Your task to perform on an android device: move a message to another label in the gmail app Image 0: 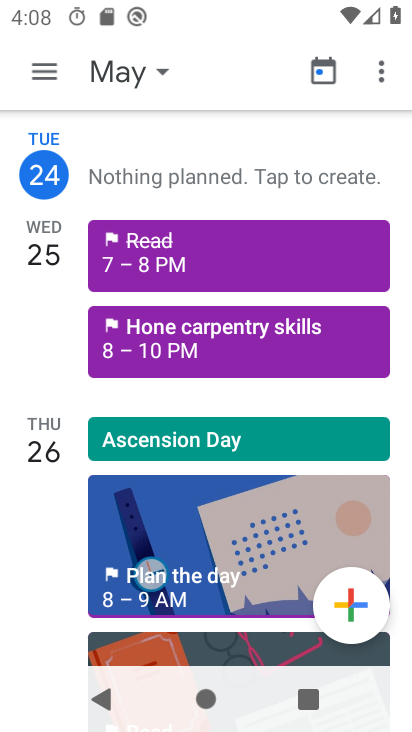
Step 0: press home button
Your task to perform on an android device: move a message to another label in the gmail app Image 1: 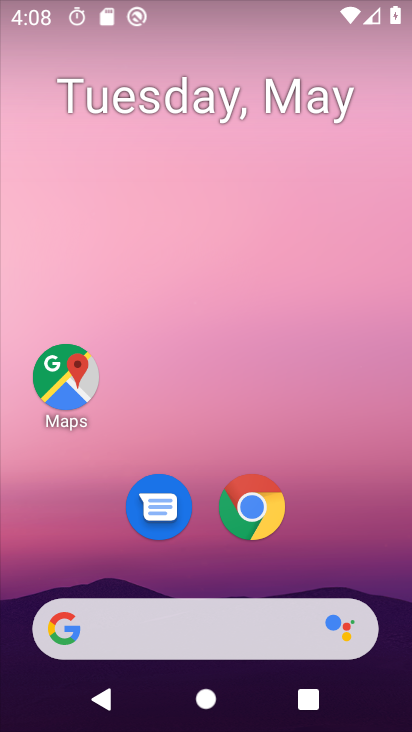
Step 1: drag from (200, 577) to (287, 32)
Your task to perform on an android device: move a message to another label in the gmail app Image 2: 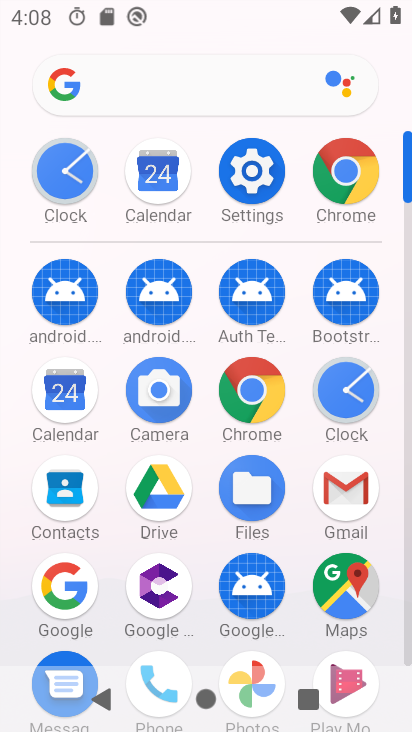
Step 2: click (351, 492)
Your task to perform on an android device: move a message to another label in the gmail app Image 3: 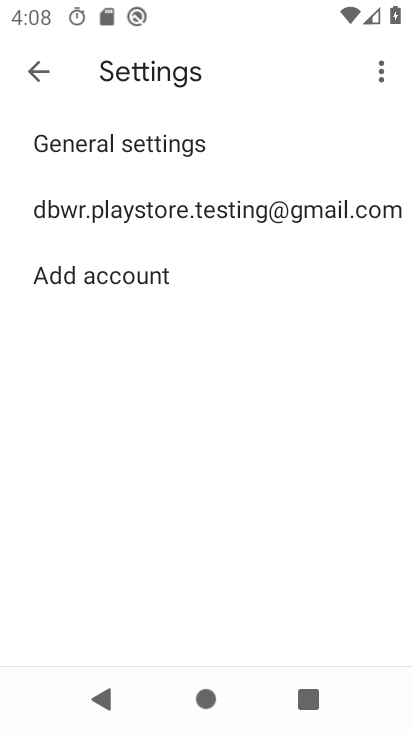
Step 3: click (32, 77)
Your task to perform on an android device: move a message to another label in the gmail app Image 4: 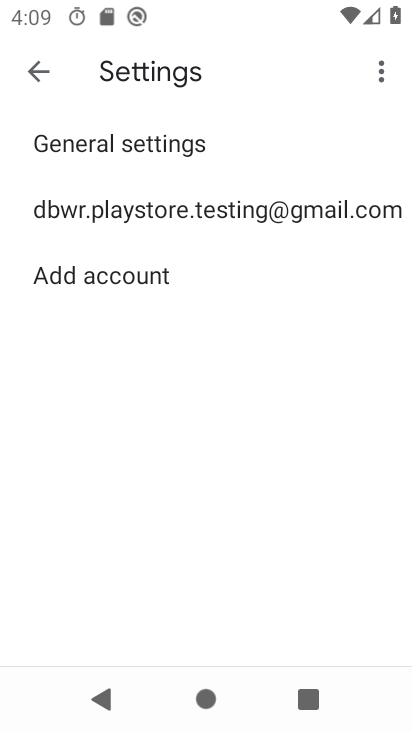
Step 4: click (35, 83)
Your task to perform on an android device: move a message to another label in the gmail app Image 5: 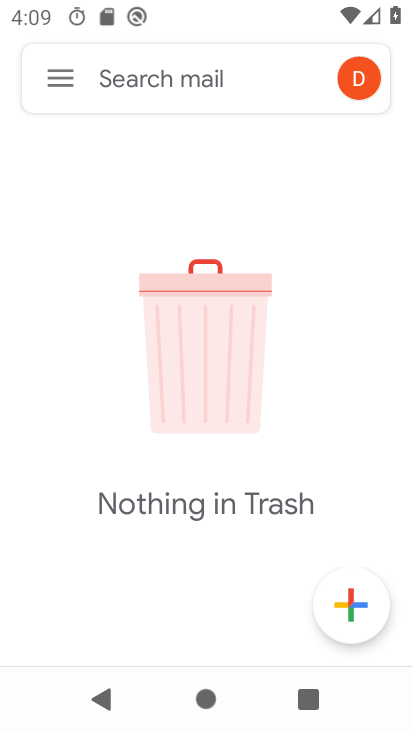
Step 5: click (60, 83)
Your task to perform on an android device: move a message to another label in the gmail app Image 6: 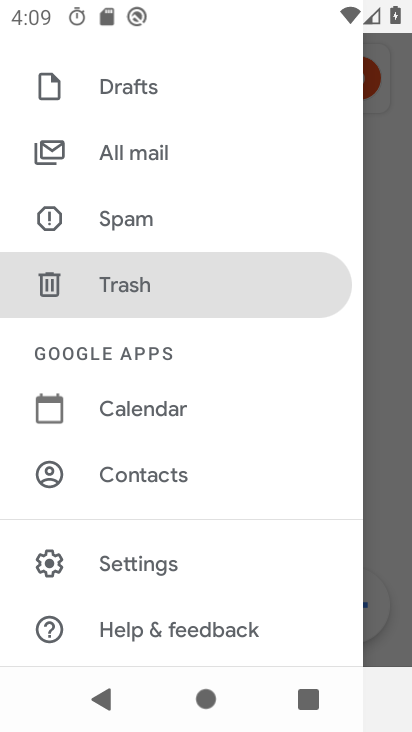
Step 6: click (192, 155)
Your task to perform on an android device: move a message to another label in the gmail app Image 7: 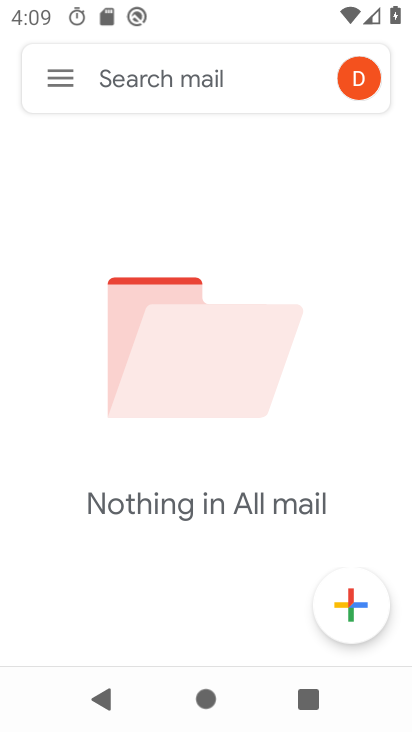
Step 7: task complete